Your task to perform on an android device: Find coffee shops on Maps Image 0: 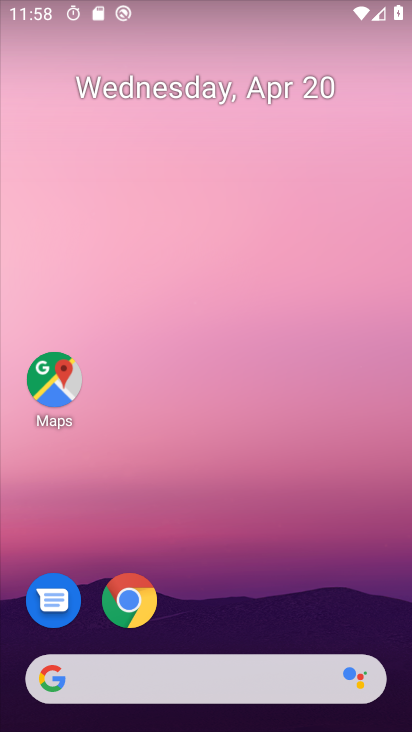
Step 0: drag from (360, 591) to (315, 195)
Your task to perform on an android device: Find coffee shops on Maps Image 1: 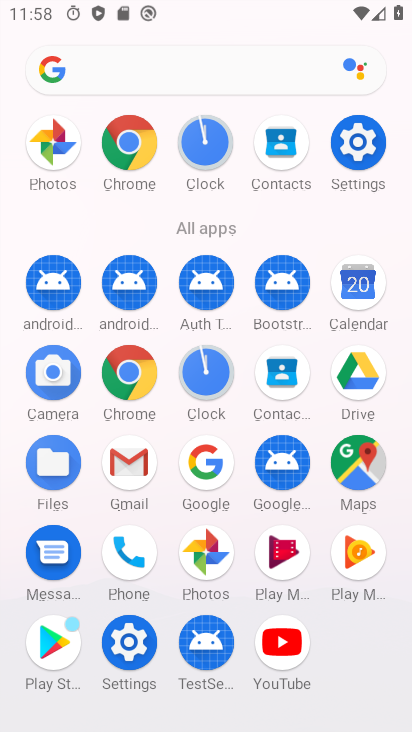
Step 1: click (349, 492)
Your task to perform on an android device: Find coffee shops on Maps Image 2: 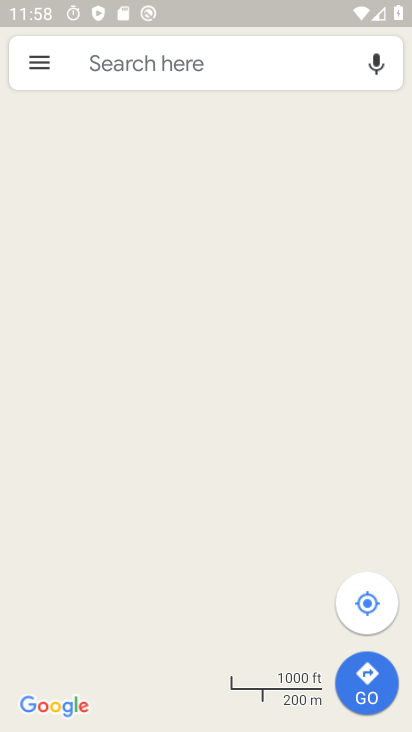
Step 2: click (214, 67)
Your task to perform on an android device: Find coffee shops on Maps Image 3: 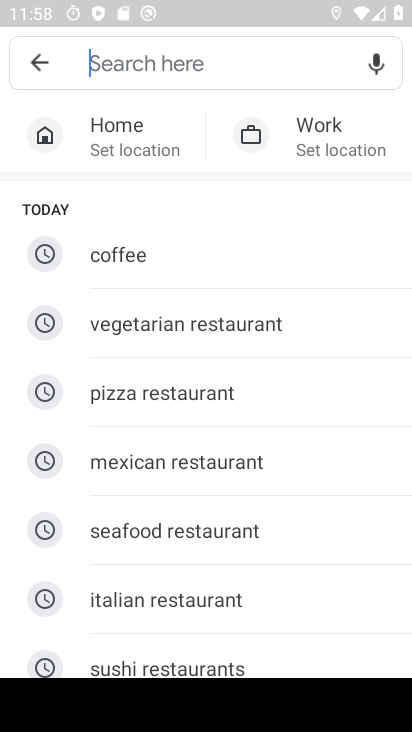
Step 3: type "coffee shop"
Your task to perform on an android device: Find coffee shops on Maps Image 4: 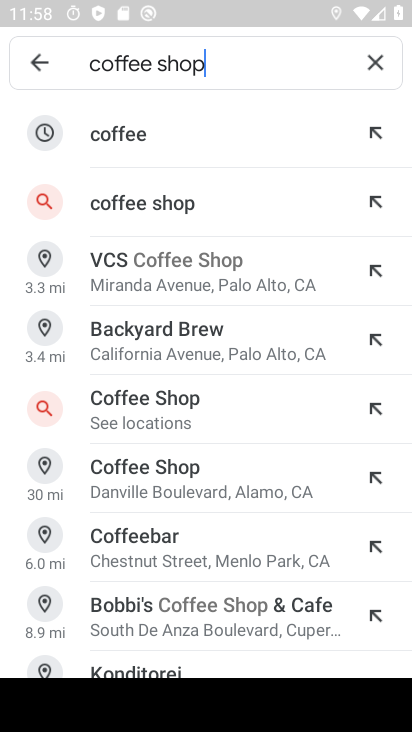
Step 4: click (117, 203)
Your task to perform on an android device: Find coffee shops on Maps Image 5: 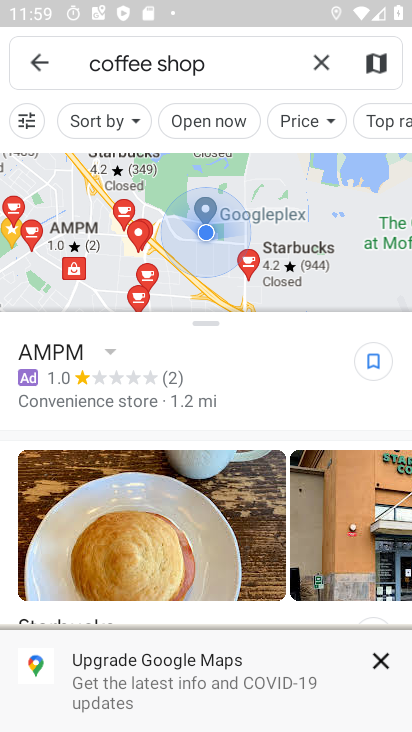
Step 5: task complete